Your task to perform on an android device: Go to ESPN.com Image 0: 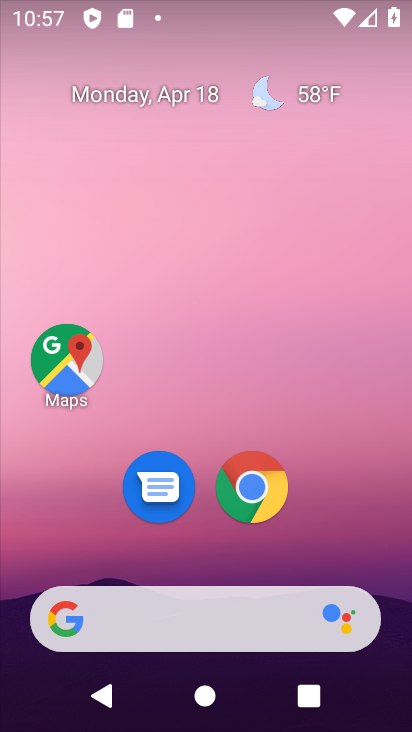
Step 0: click (259, 471)
Your task to perform on an android device: Go to ESPN.com Image 1: 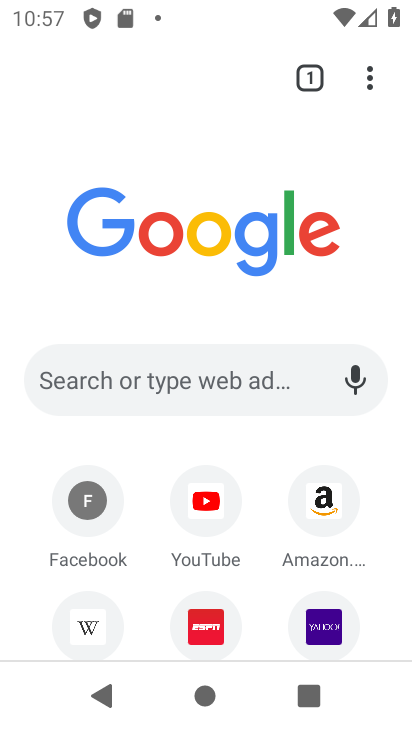
Step 1: drag from (205, 288) to (195, 140)
Your task to perform on an android device: Go to ESPN.com Image 2: 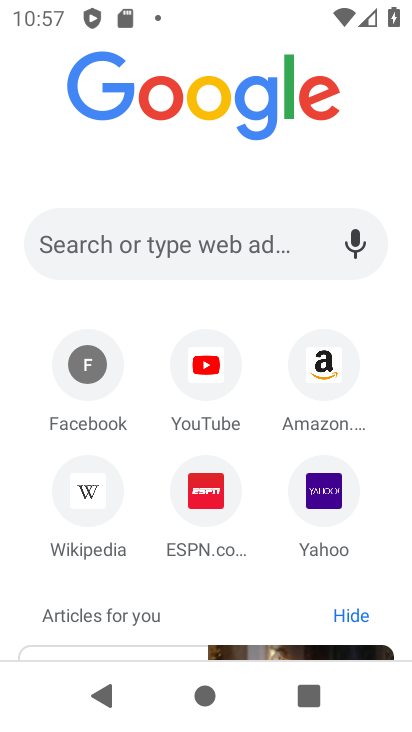
Step 2: click (213, 482)
Your task to perform on an android device: Go to ESPN.com Image 3: 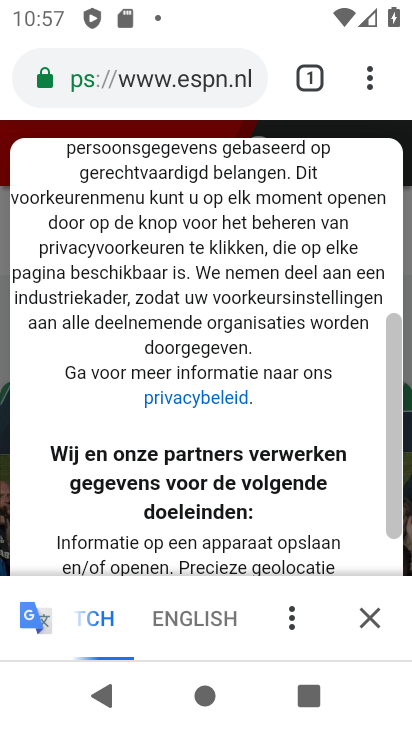
Step 3: task complete